Your task to perform on an android device: Go to Maps Image 0: 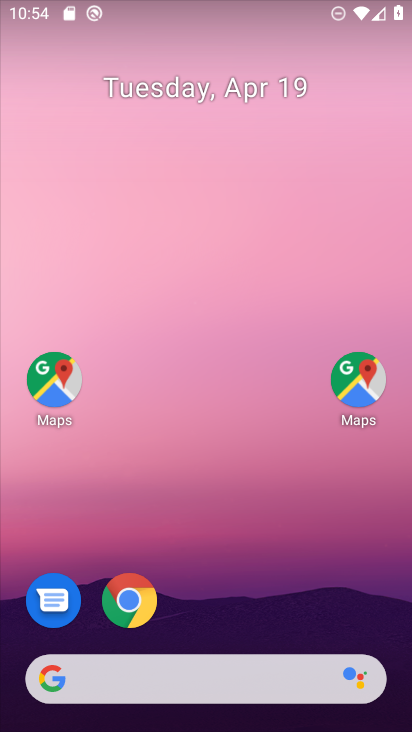
Step 0: drag from (264, 627) to (287, 126)
Your task to perform on an android device: Go to Maps Image 1: 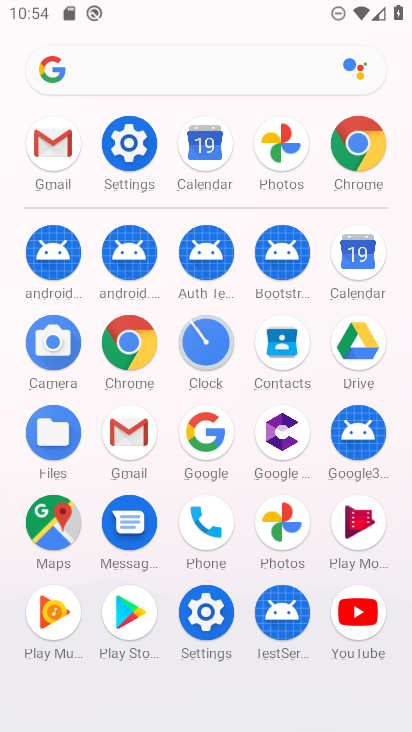
Step 1: click (59, 535)
Your task to perform on an android device: Go to Maps Image 2: 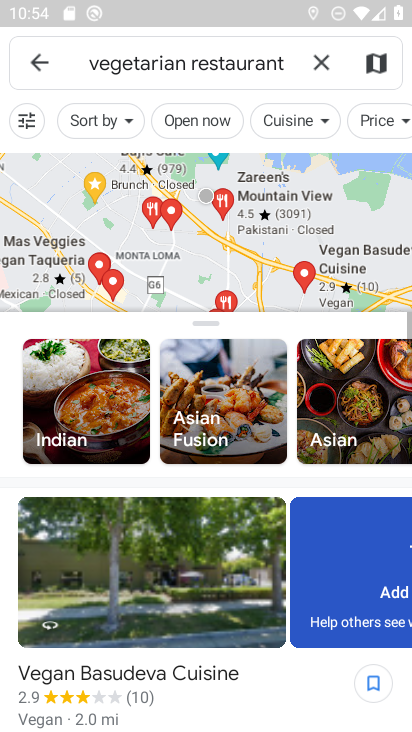
Step 2: click (48, 65)
Your task to perform on an android device: Go to Maps Image 3: 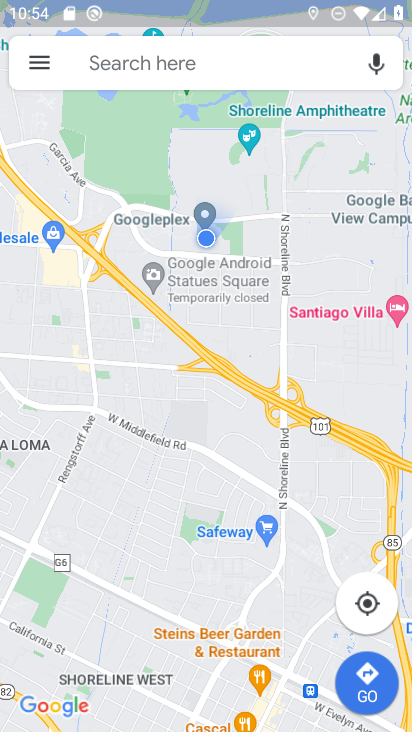
Step 3: task complete